Your task to perform on an android device: uninstall "Move to iOS" Image 0: 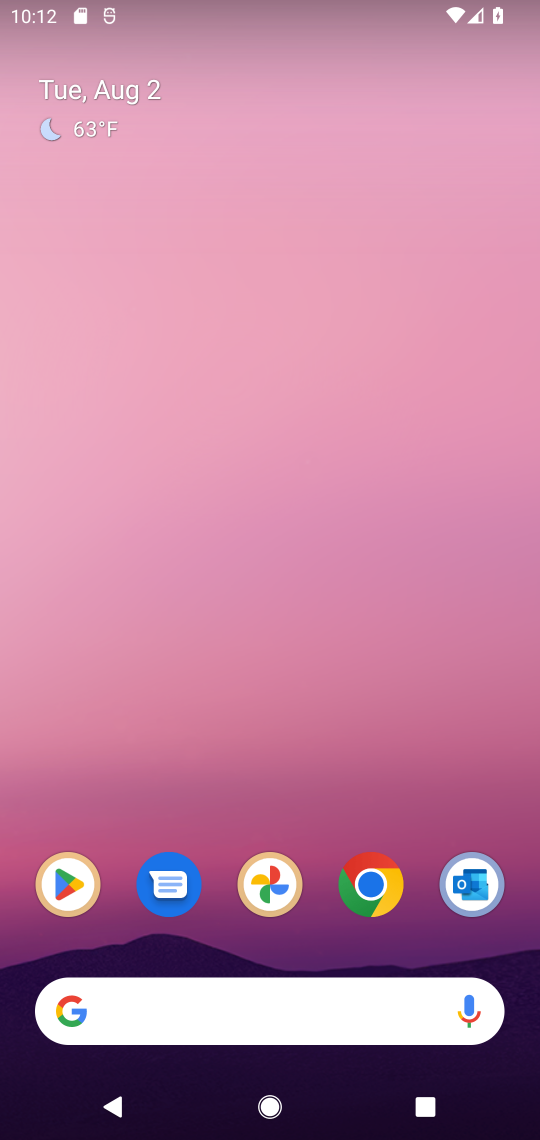
Step 0: click (72, 901)
Your task to perform on an android device: uninstall "Move to iOS" Image 1: 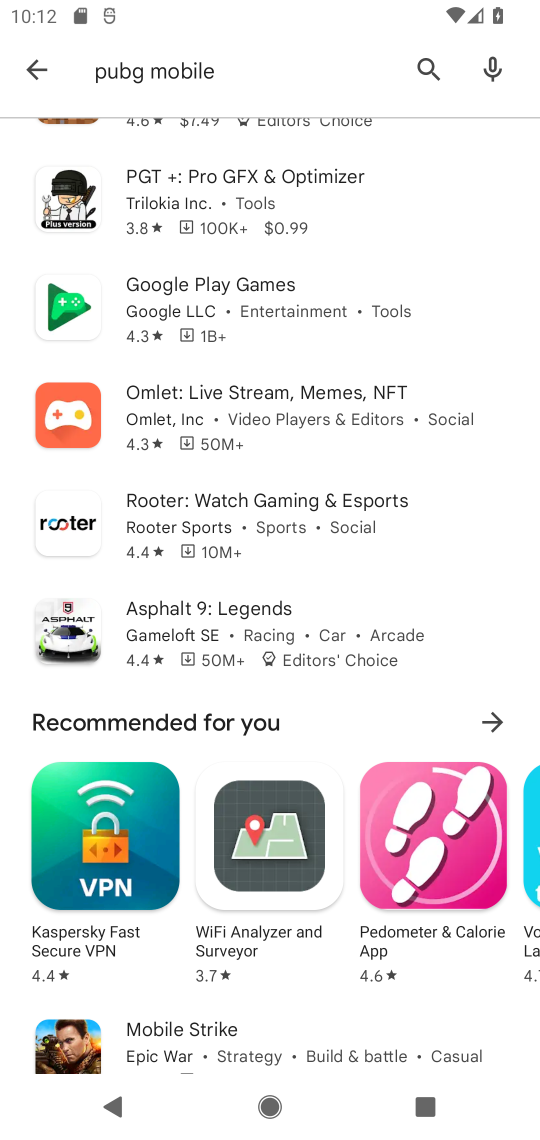
Step 1: click (215, 68)
Your task to perform on an android device: uninstall "Move to iOS" Image 2: 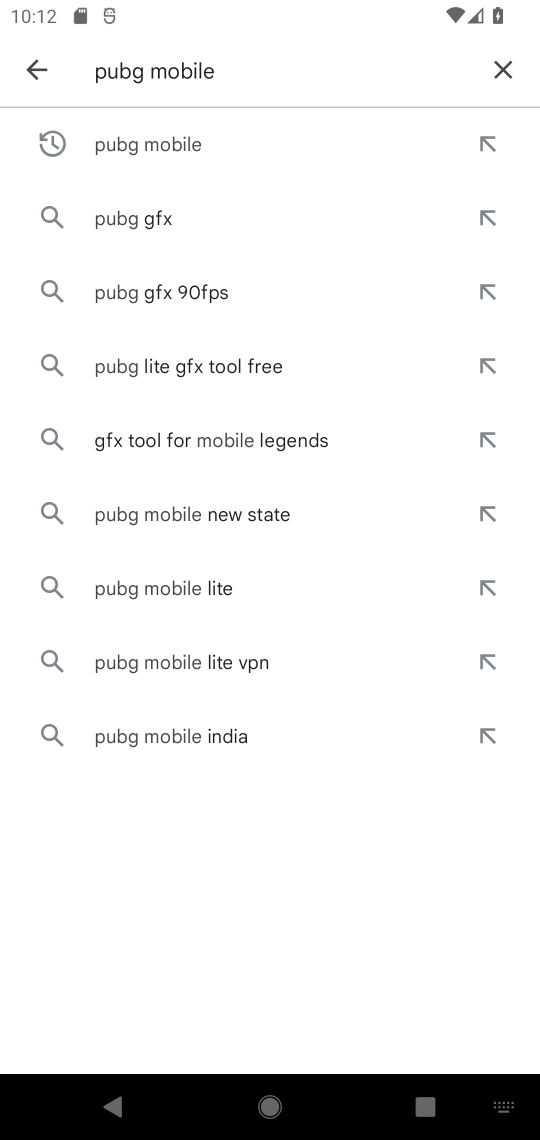
Step 2: click (502, 65)
Your task to perform on an android device: uninstall "Move to iOS" Image 3: 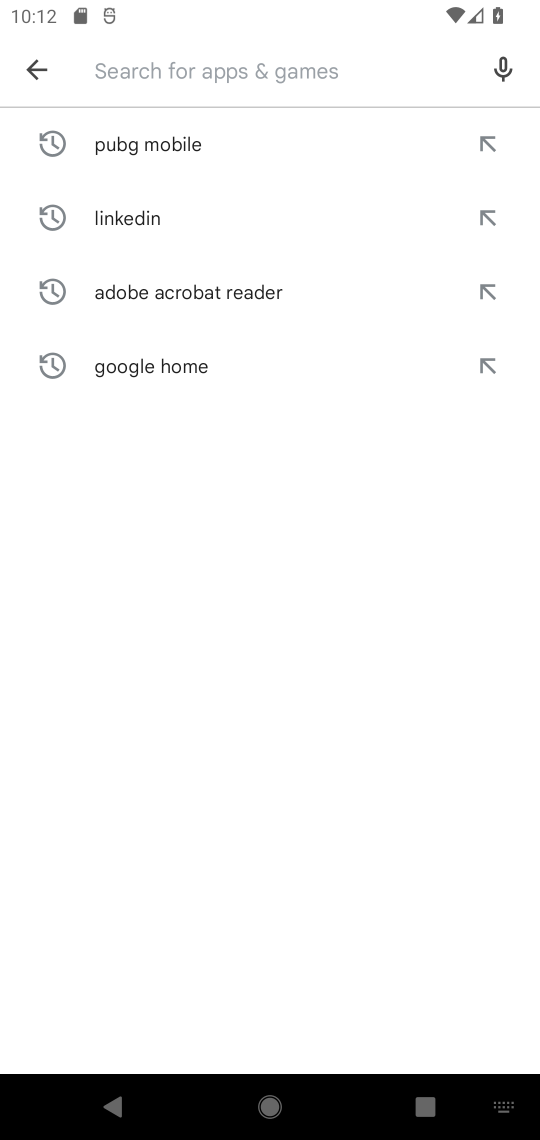
Step 3: type "move to IOS"
Your task to perform on an android device: uninstall "Move to iOS" Image 4: 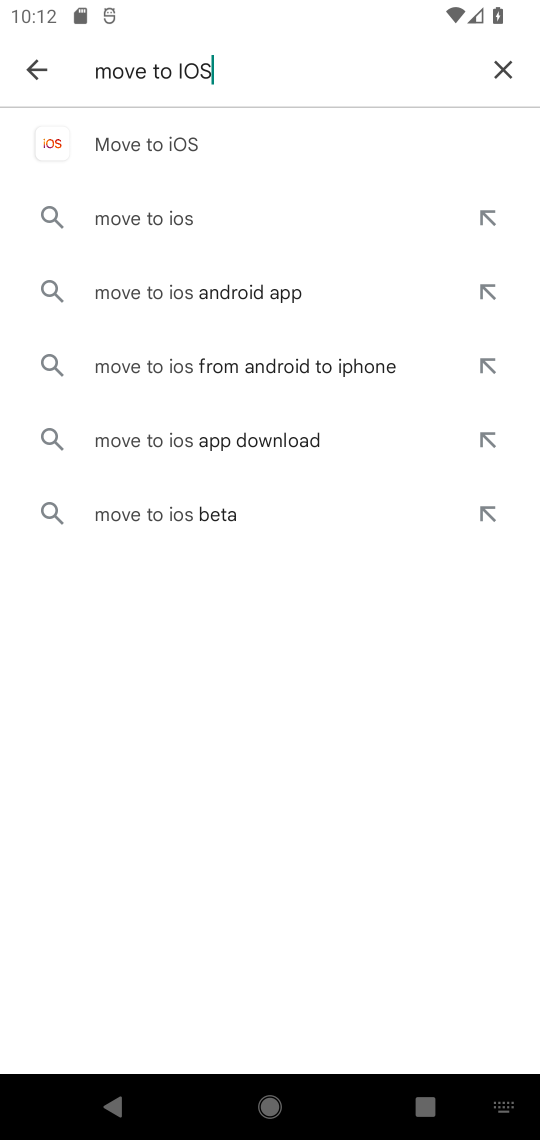
Step 4: click (121, 142)
Your task to perform on an android device: uninstall "Move to iOS" Image 5: 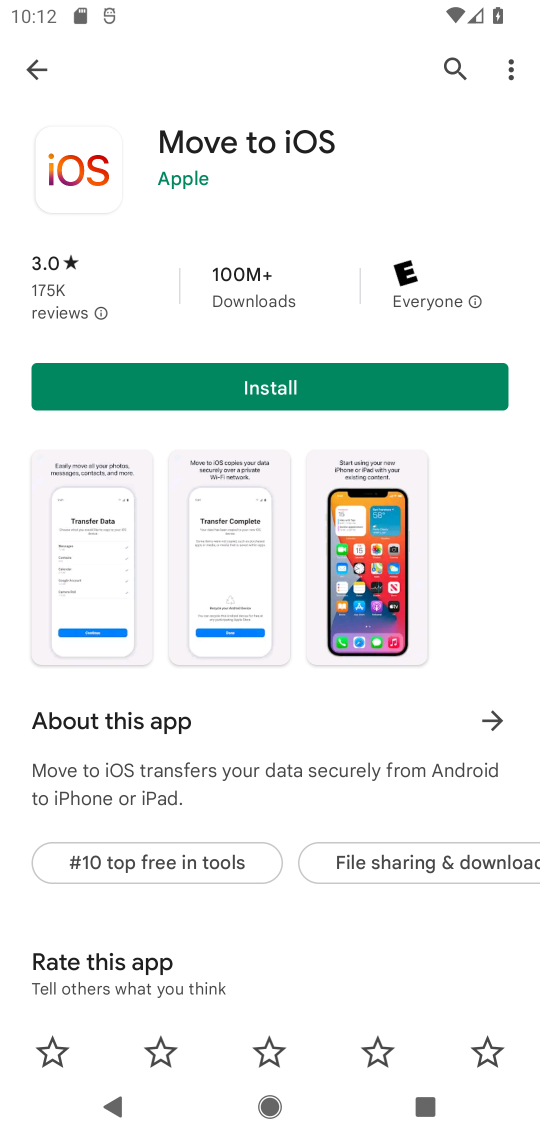
Step 5: task complete